Your task to perform on an android device: move an email to a new category in the gmail app Image 0: 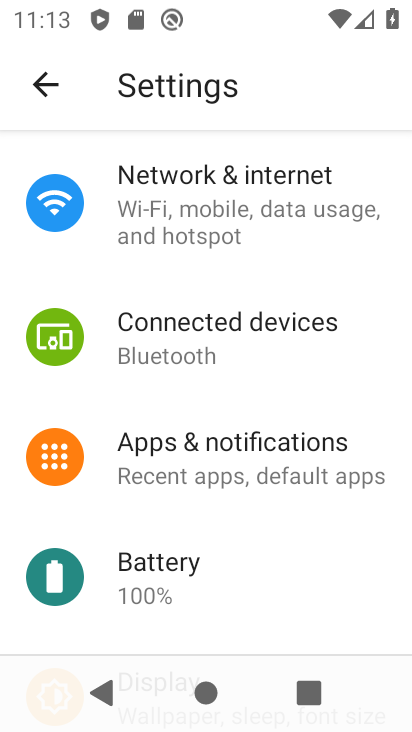
Step 0: press home button
Your task to perform on an android device: move an email to a new category in the gmail app Image 1: 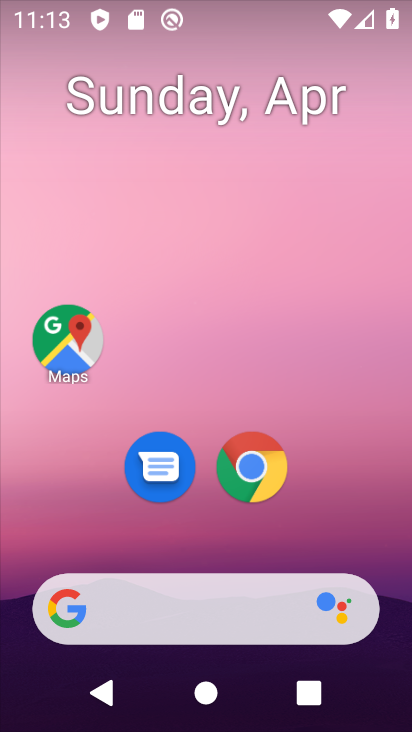
Step 1: drag from (205, 452) to (208, 254)
Your task to perform on an android device: move an email to a new category in the gmail app Image 2: 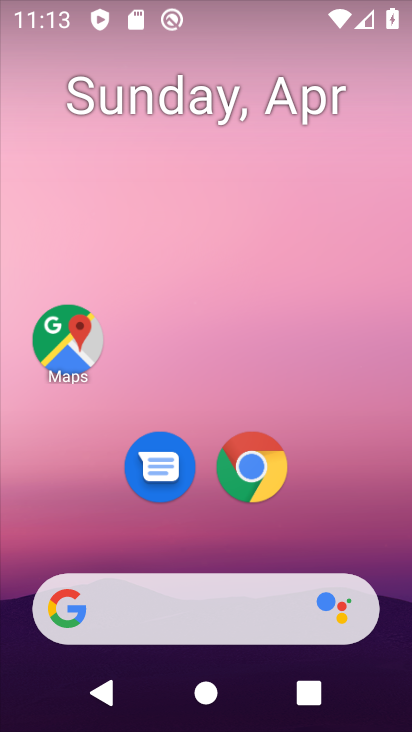
Step 2: drag from (194, 545) to (206, 131)
Your task to perform on an android device: move an email to a new category in the gmail app Image 3: 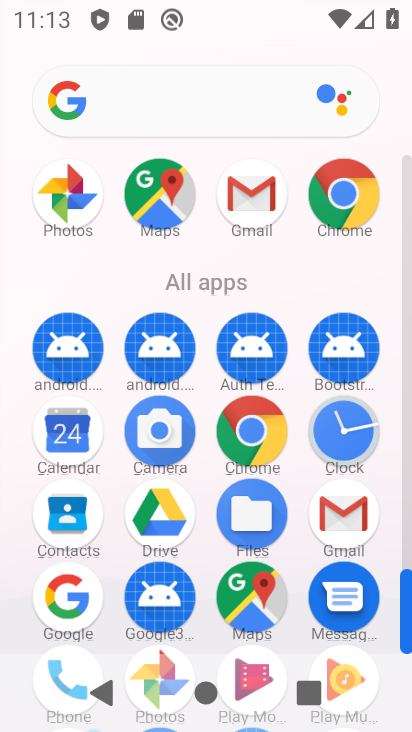
Step 3: drag from (208, 646) to (233, 298)
Your task to perform on an android device: move an email to a new category in the gmail app Image 4: 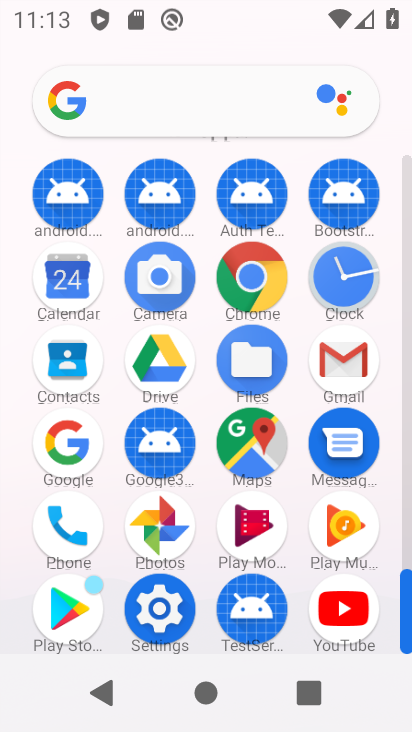
Step 4: click (342, 360)
Your task to perform on an android device: move an email to a new category in the gmail app Image 5: 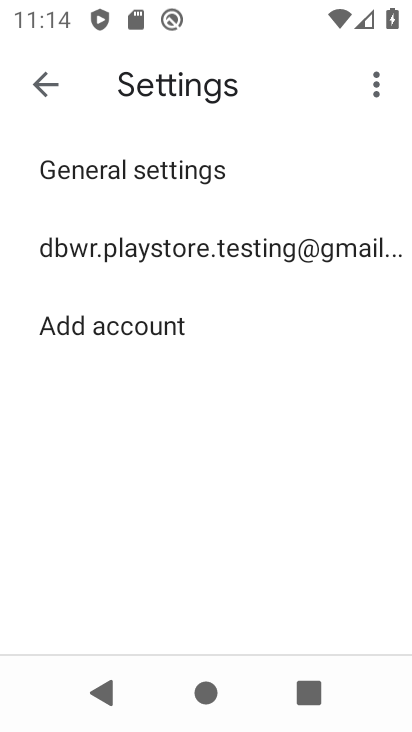
Step 5: click (195, 249)
Your task to perform on an android device: move an email to a new category in the gmail app Image 6: 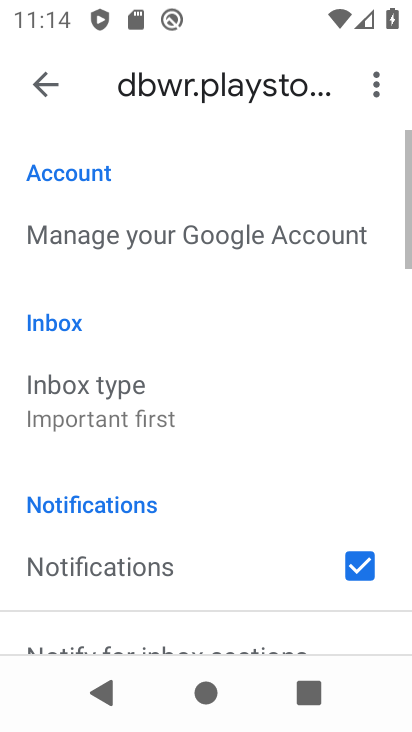
Step 6: drag from (195, 522) to (201, 255)
Your task to perform on an android device: move an email to a new category in the gmail app Image 7: 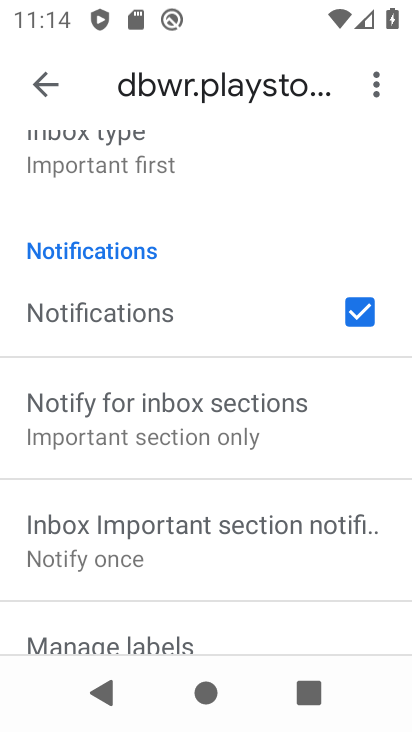
Step 7: click (38, 75)
Your task to perform on an android device: move an email to a new category in the gmail app Image 8: 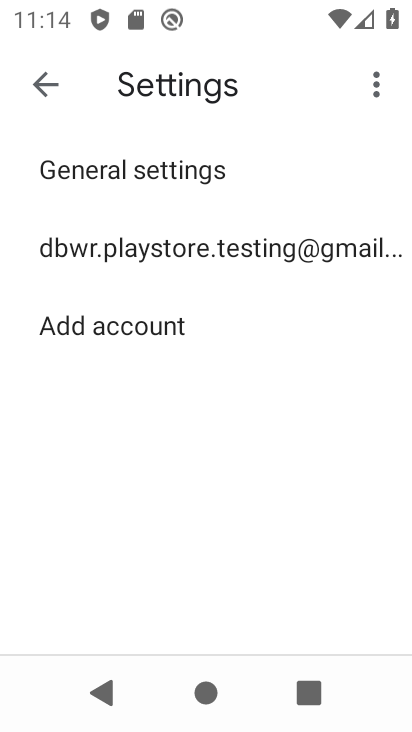
Step 8: click (38, 75)
Your task to perform on an android device: move an email to a new category in the gmail app Image 9: 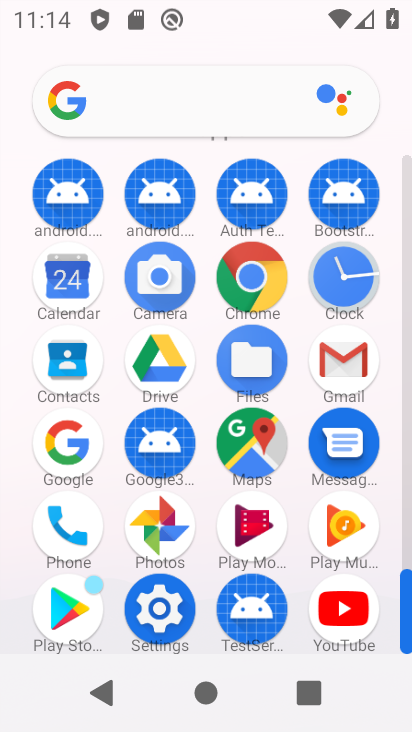
Step 9: click (349, 346)
Your task to perform on an android device: move an email to a new category in the gmail app Image 10: 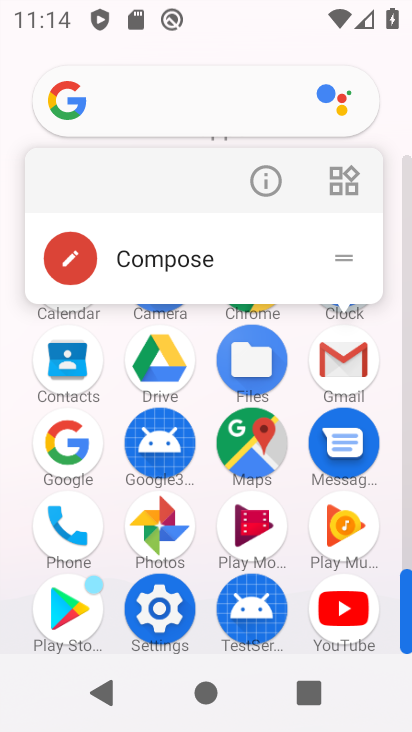
Step 10: click (249, 201)
Your task to perform on an android device: move an email to a new category in the gmail app Image 11: 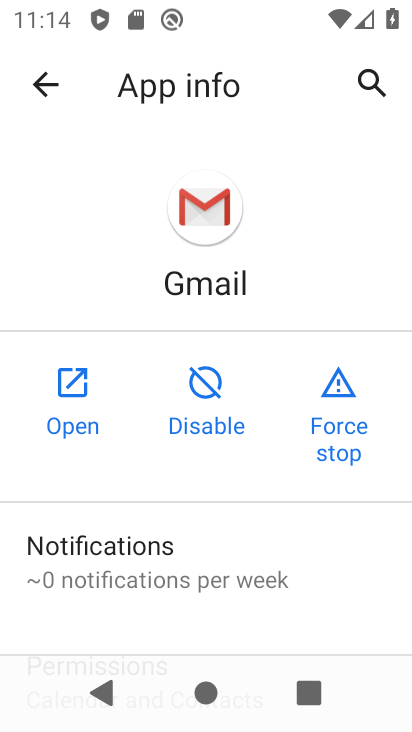
Step 11: click (78, 390)
Your task to perform on an android device: move an email to a new category in the gmail app Image 12: 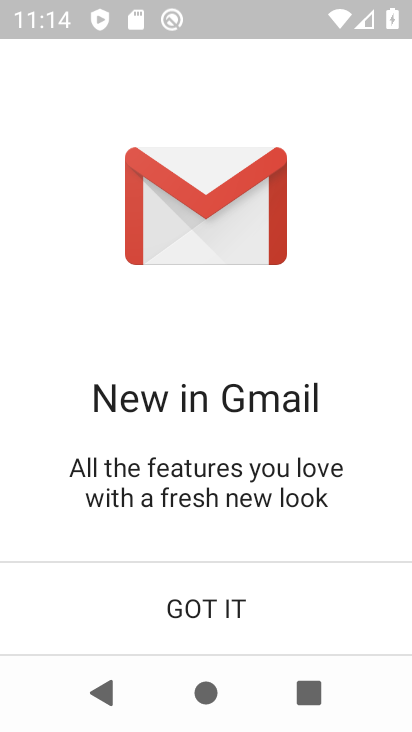
Step 12: drag from (211, 477) to (251, 253)
Your task to perform on an android device: move an email to a new category in the gmail app Image 13: 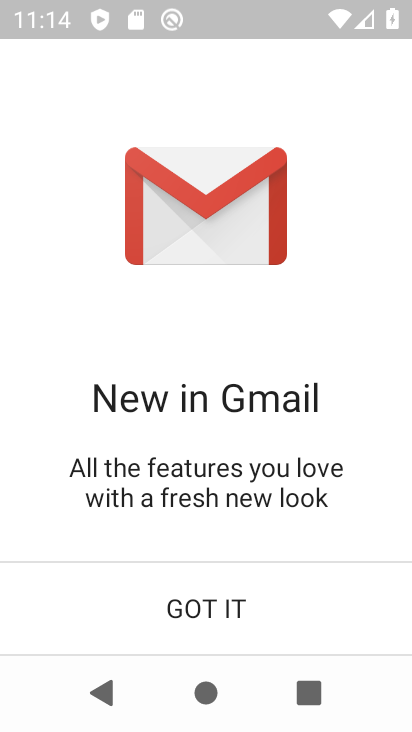
Step 13: drag from (102, 495) to (185, 288)
Your task to perform on an android device: move an email to a new category in the gmail app Image 14: 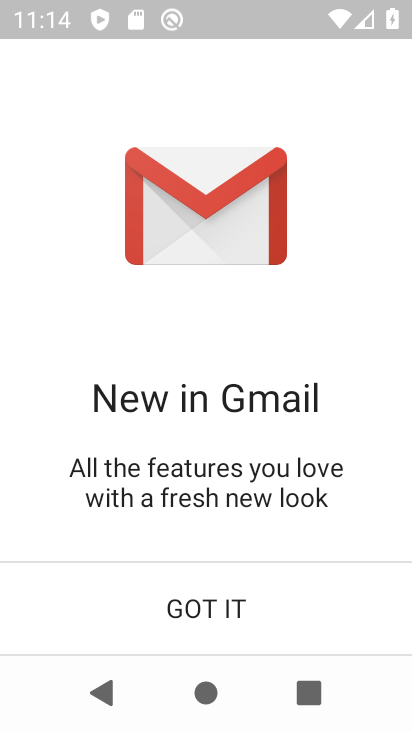
Step 14: click (195, 605)
Your task to perform on an android device: move an email to a new category in the gmail app Image 15: 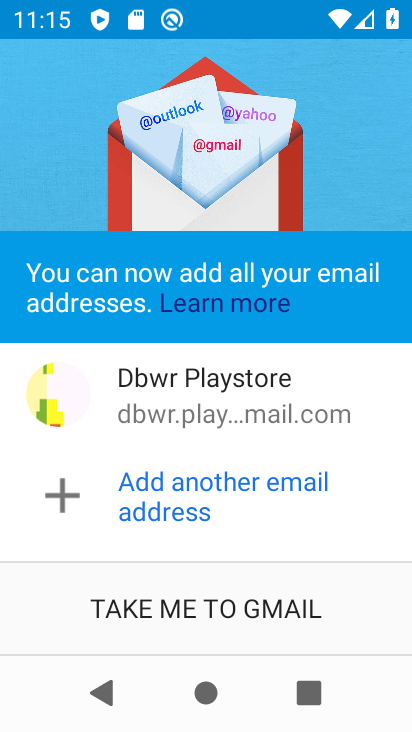
Step 15: click (185, 595)
Your task to perform on an android device: move an email to a new category in the gmail app Image 16: 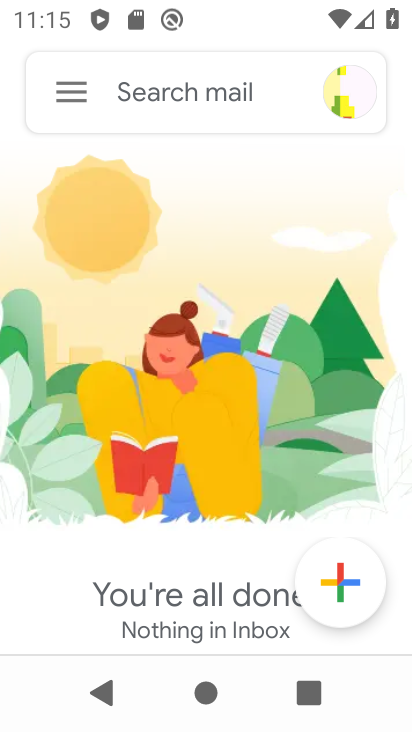
Step 16: click (52, 84)
Your task to perform on an android device: move an email to a new category in the gmail app Image 17: 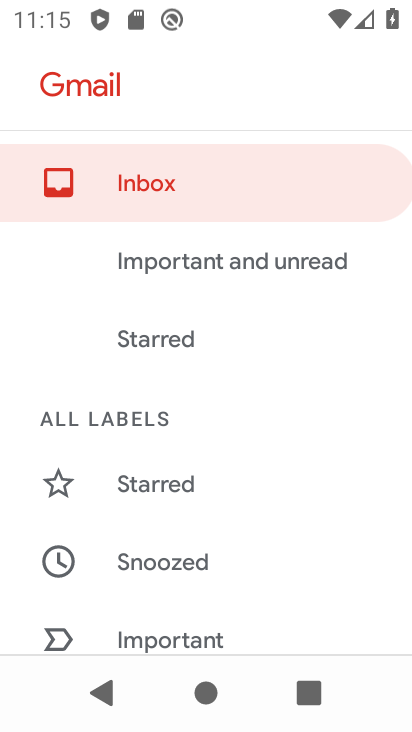
Step 17: drag from (243, 540) to (261, 361)
Your task to perform on an android device: move an email to a new category in the gmail app Image 18: 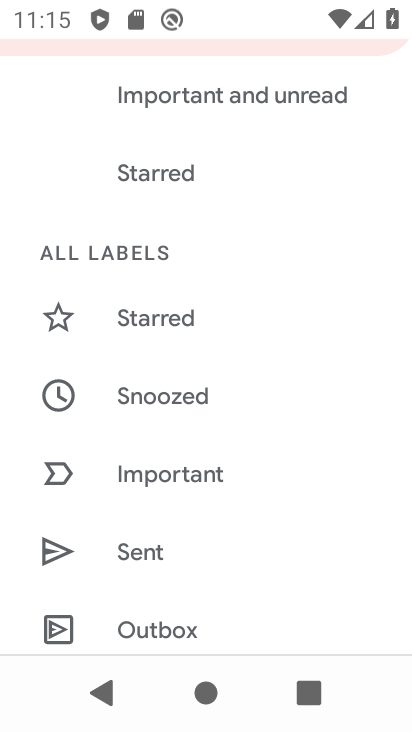
Step 18: drag from (213, 533) to (275, 72)
Your task to perform on an android device: move an email to a new category in the gmail app Image 19: 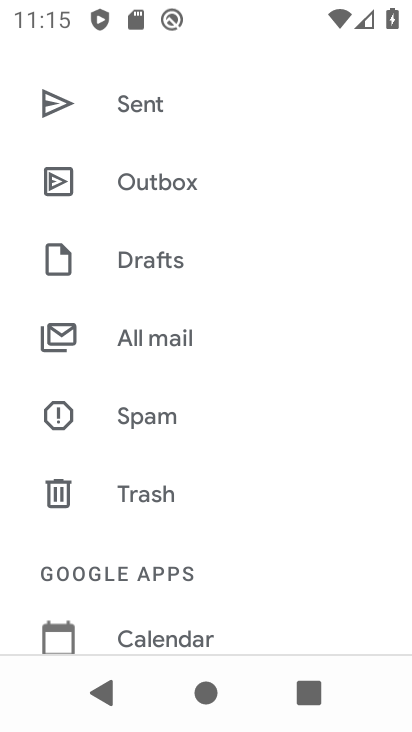
Step 19: drag from (138, 512) to (178, 139)
Your task to perform on an android device: move an email to a new category in the gmail app Image 20: 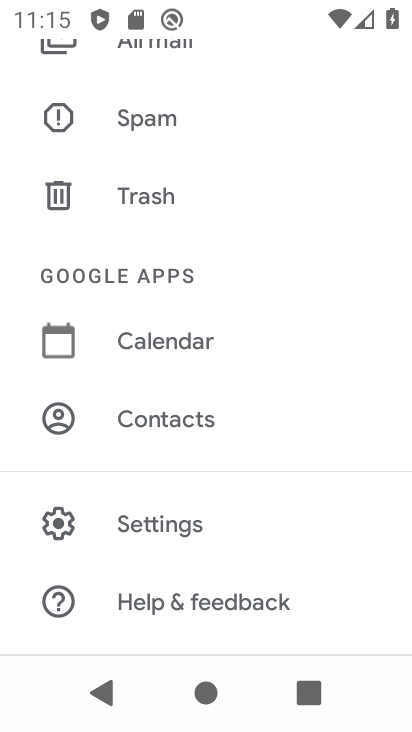
Step 20: drag from (236, 213) to (261, 728)
Your task to perform on an android device: move an email to a new category in the gmail app Image 21: 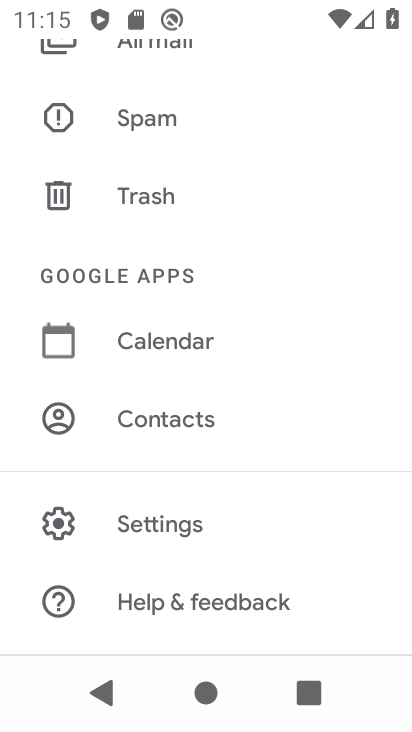
Step 21: drag from (155, 129) to (236, 695)
Your task to perform on an android device: move an email to a new category in the gmail app Image 22: 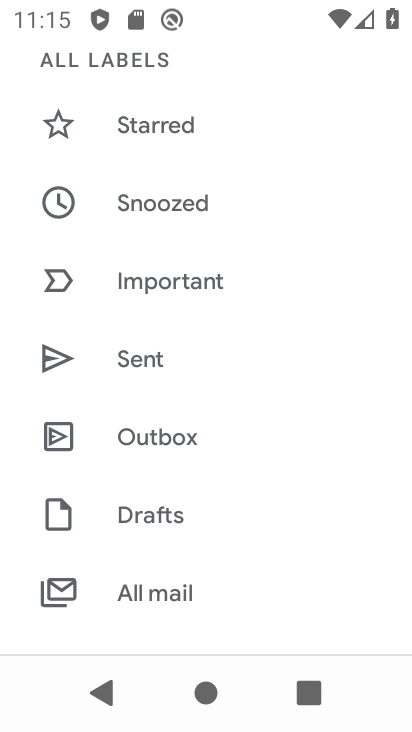
Step 22: drag from (144, 166) to (172, 638)
Your task to perform on an android device: move an email to a new category in the gmail app Image 23: 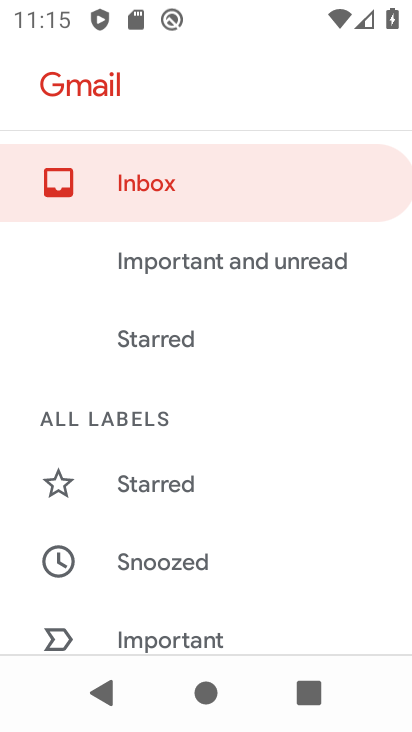
Step 23: click (158, 179)
Your task to perform on an android device: move an email to a new category in the gmail app Image 24: 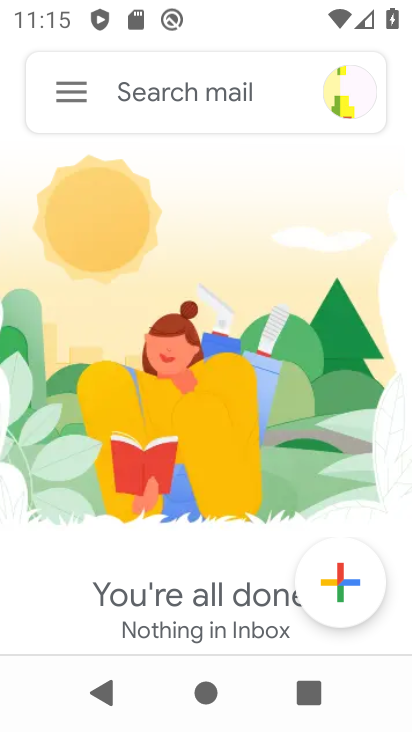
Step 24: drag from (139, 400) to (179, 628)
Your task to perform on an android device: move an email to a new category in the gmail app Image 25: 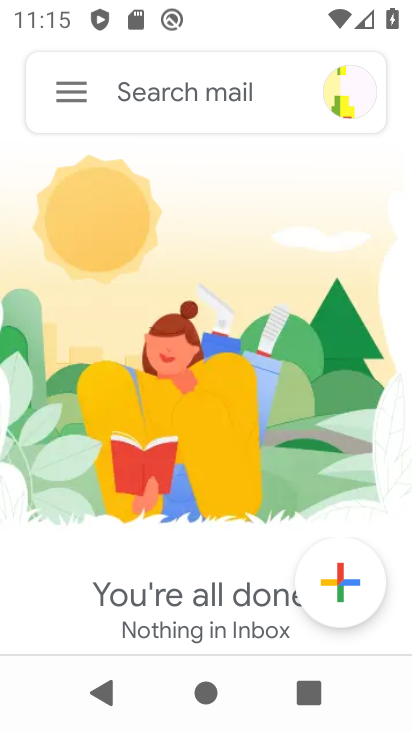
Step 25: click (63, 91)
Your task to perform on an android device: move an email to a new category in the gmail app Image 26: 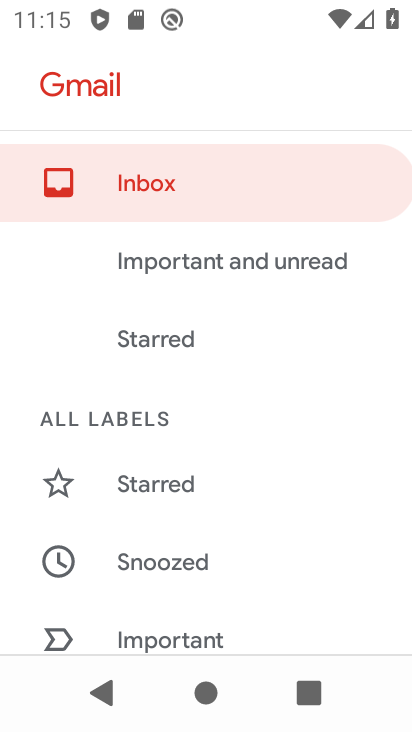
Step 26: click (263, 185)
Your task to perform on an android device: move an email to a new category in the gmail app Image 27: 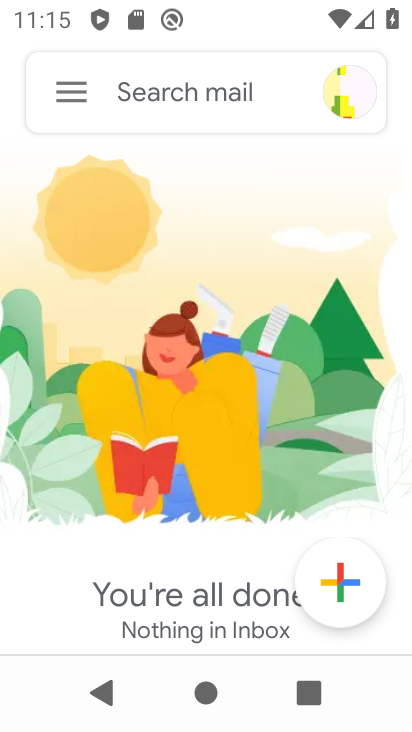
Step 27: task complete